Your task to perform on an android device: What's on my calendar today? Image 0: 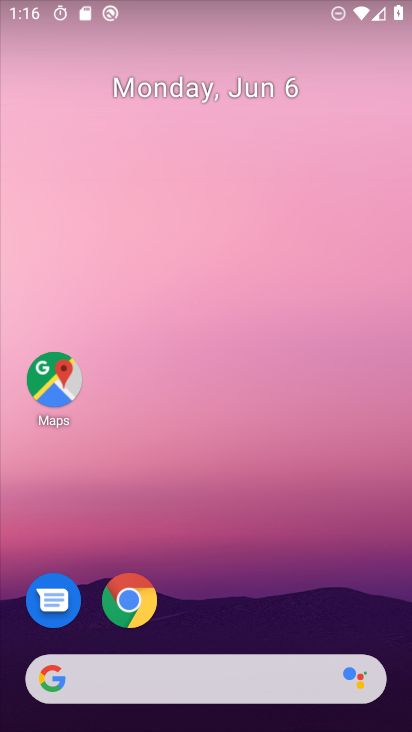
Step 0: drag from (214, 617) to (209, 213)
Your task to perform on an android device: What's on my calendar today? Image 1: 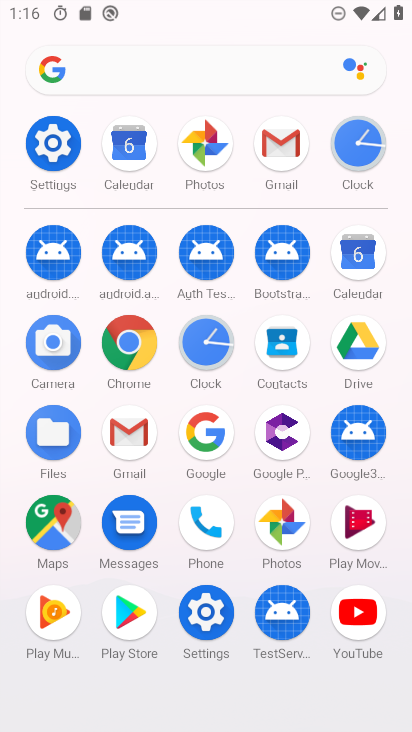
Step 1: click (334, 270)
Your task to perform on an android device: What's on my calendar today? Image 2: 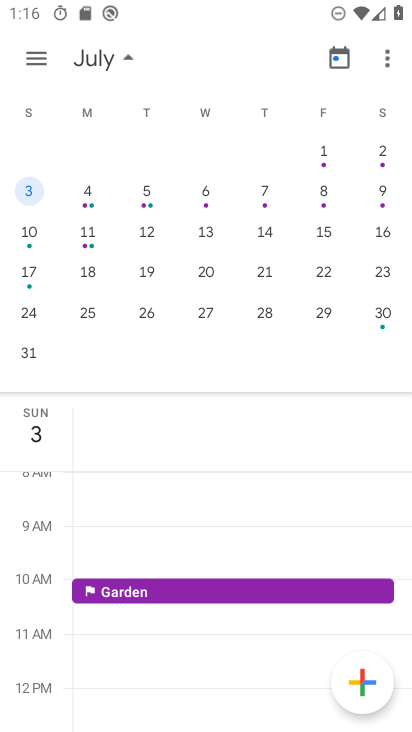
Step 2: drag from (52, 223) to (393, 232)
Your task to perform on an android device: What's on my calendar today? Image 3: 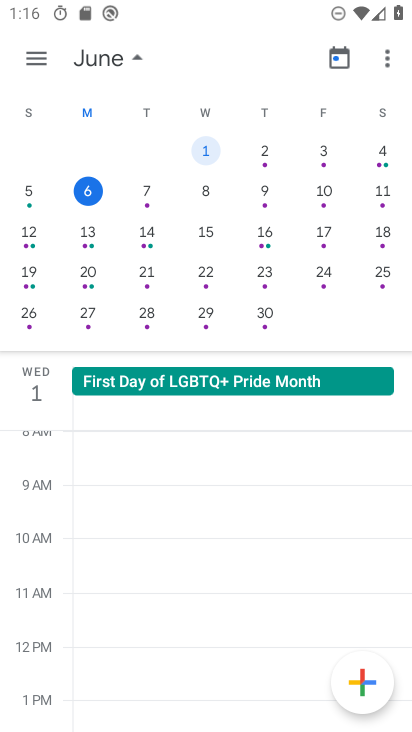
Step 3: click (95, 196)
Your task to perform on an android device: What's on my calendar today? Image 4: 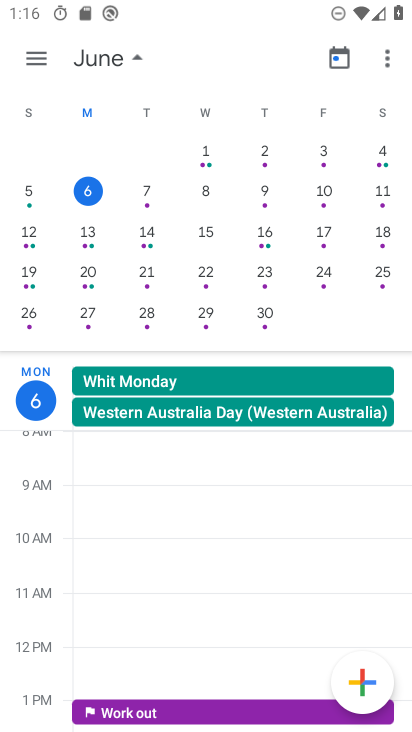
Step 4: task complete